Your task to perform on an android device: search for starred emails in the gmail app Image 0: 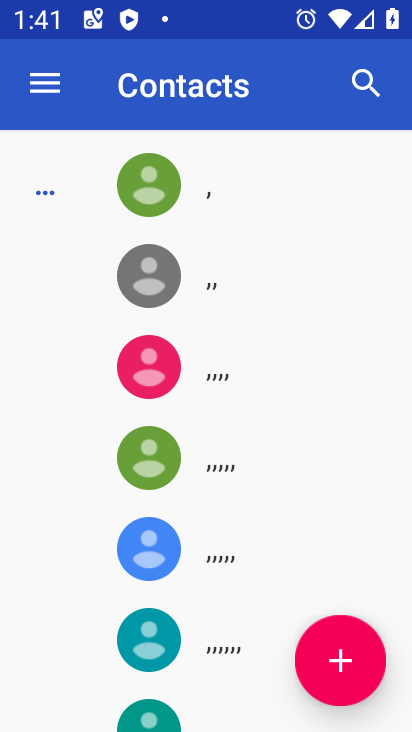
Step 0: press home button
Your task to perform on an android device: search for starred emails in the gmail app Image 1: 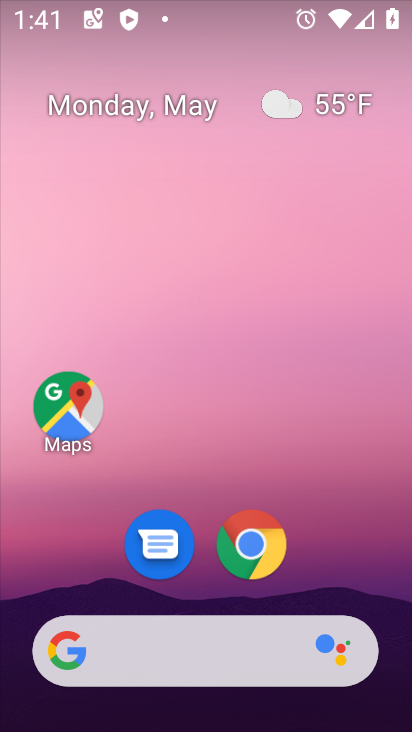
Step 1: drag from (396, 651) to (289, 98)
Your task to perform on an android device: search for starred emails in the gmail app Image 2: 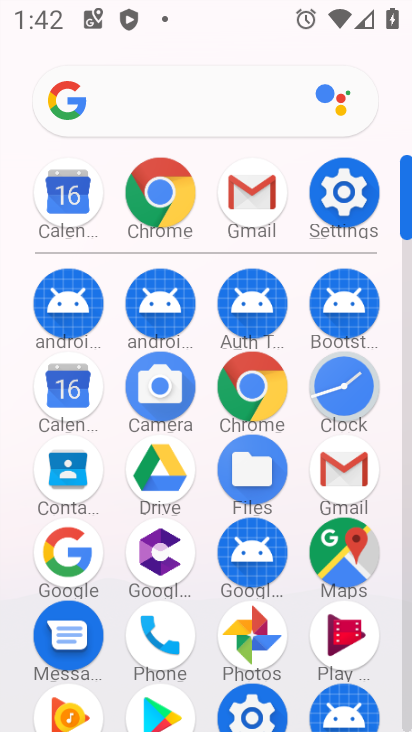
Step 2: click (344, 465)
Your task to perform on an android device: search for starred emails in the gmail app Image 3: 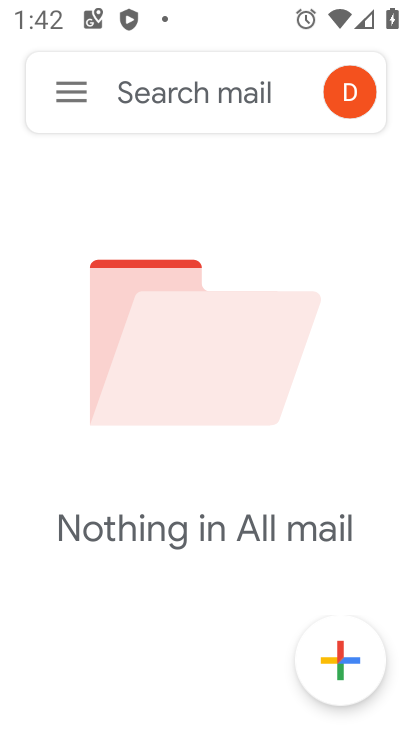
Step 3: click (66, 87)
Your task to perform on an android device: search for starred emails in the gmail app Image 4: 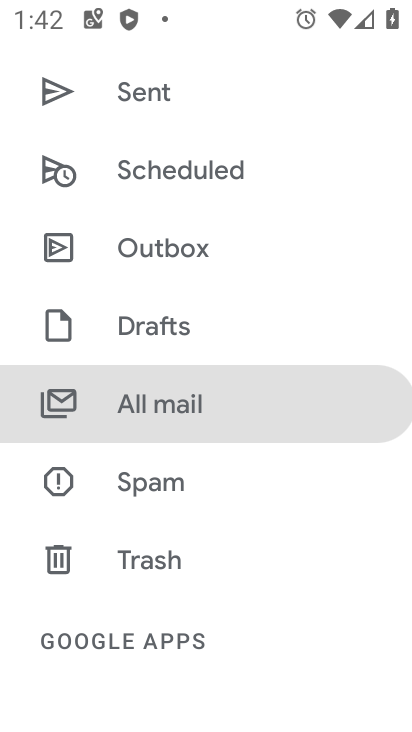
Step 4: drag from (307, 223) to (236, 553)
Your task to perform on an android device: search for starred emails in the gmail app Image 5: 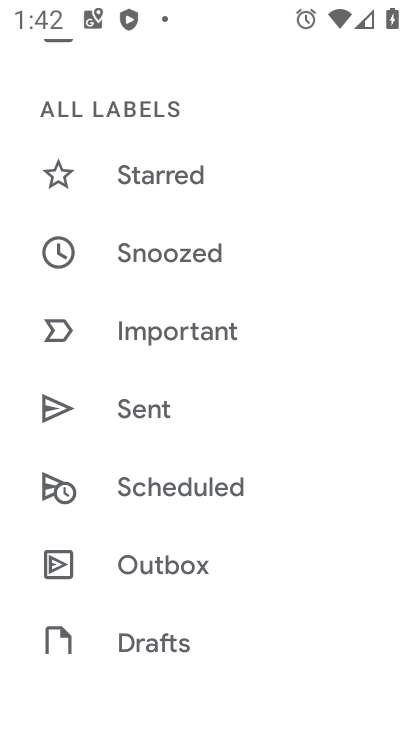
Step 5: click (143, 178)
Your task to perform on an android device: search for starred emails in the gmail app Image 6: 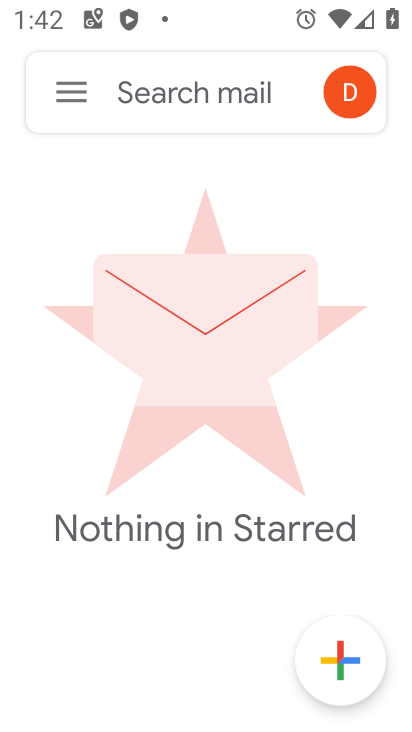
Step 6: task complete